Your task to perform on an android device: Go to Yahoo.com Image 0: 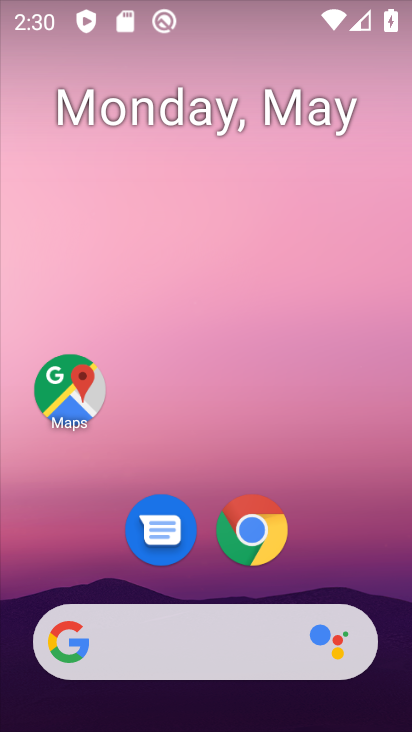
Step 0: click (259, 540)
Your task to perform on an android device: Go to Yahoo.com Image 1: 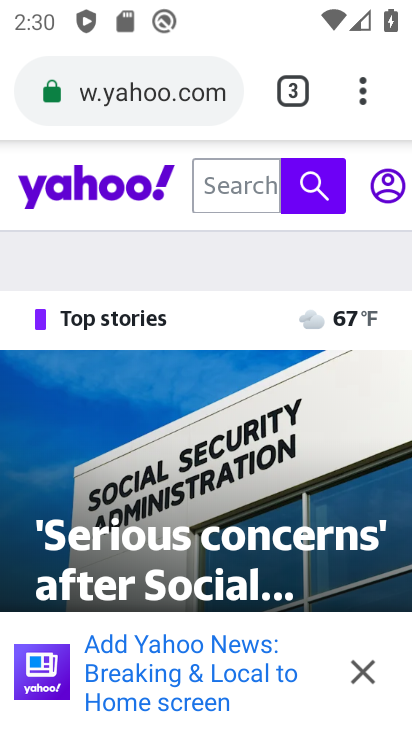
Step 1: task complete